Your task to perform on an android device: Open Google Maps Image 0: 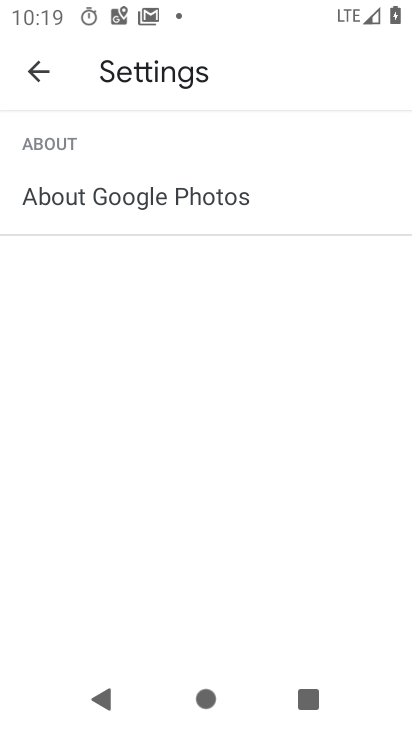
Step 0: press home button
Your task to perform on an android device: Open Google Maps Image 1: 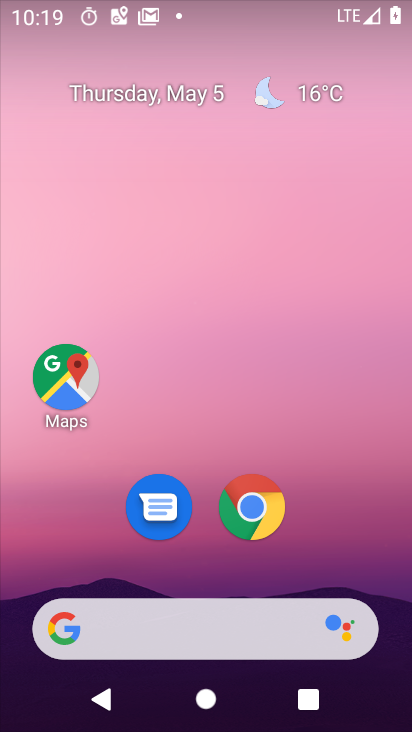
Step 1: click (66, 377)
Your task to perform on an android device: Open Google Maps Image 2: 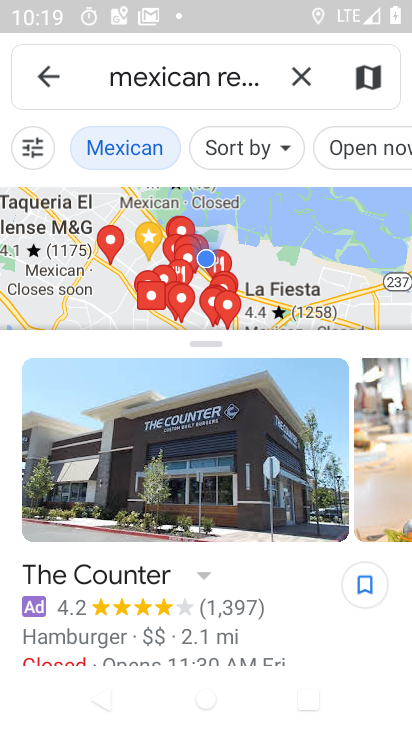
Step 2: press home button
Your task to perform on an android device: Open Google Maps Image 3: 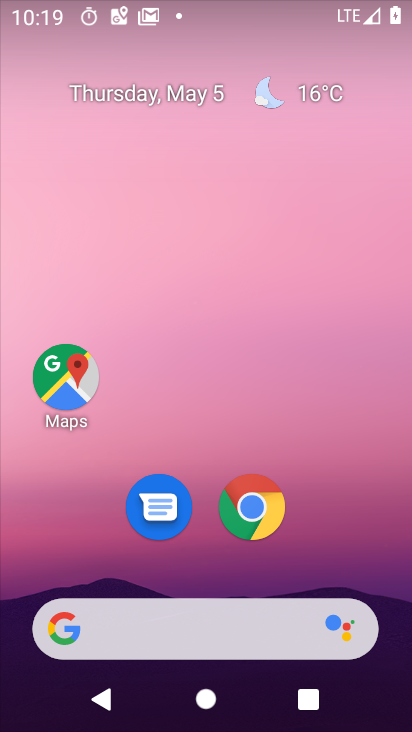
Step 3: click (64, 376)
Your task to perform on an android device: Open Google Maps Image 4: 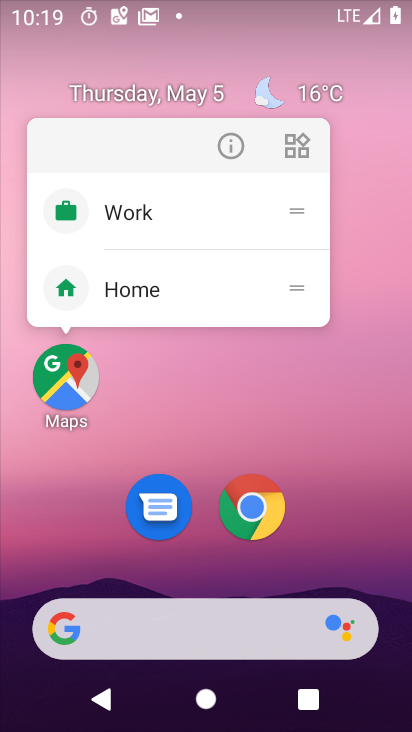
Step 4: click (218, 146)
Your task to perform on an android device: Open Google Maps Image 5: 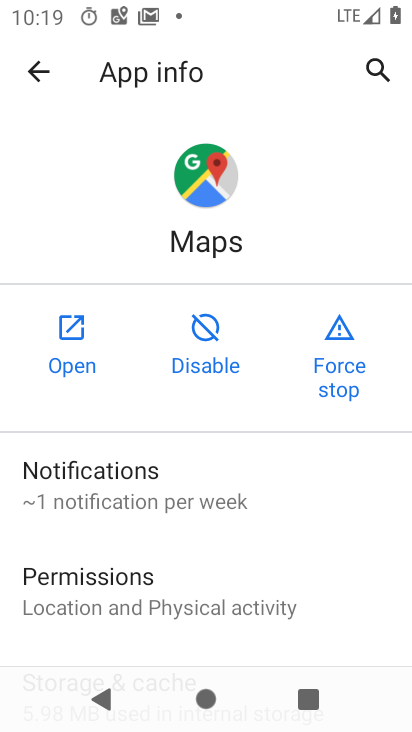
Step 5: click (77, 342)
Your task to perform on an android device: Open Google Maps Image 6: 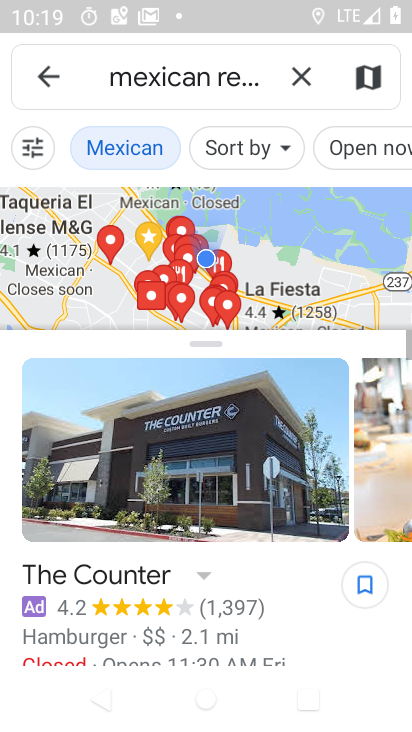
Step 6: task complete